Your task to perform on an android device: change the clock style Image 0: 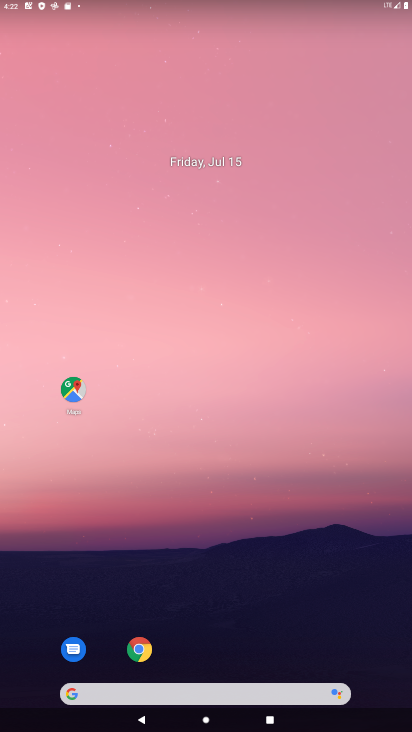
Step 0: drag from (243, 560) to (82, 0)
Your task to perform on an android device: change the clock style Image 1: 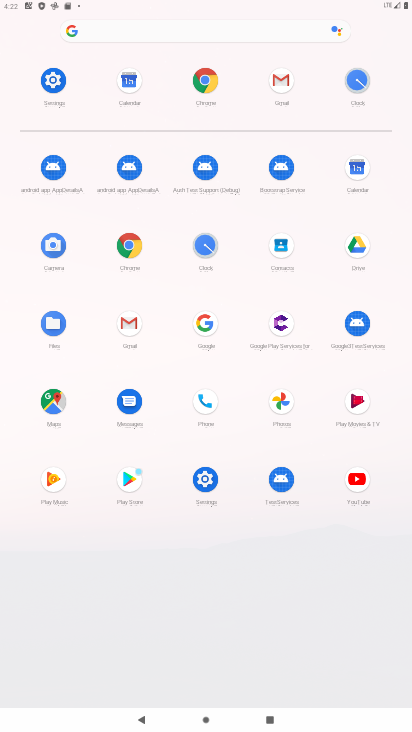
Step 1: click (208, 240)
Your task to perform on an android device: change the clock style Image 2: 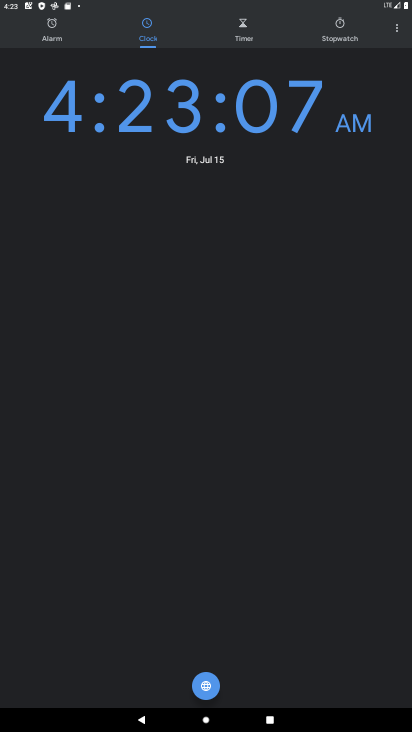
Step 2: click (392, 31)
Your task to perform on an android device: change the clock style Image 3: 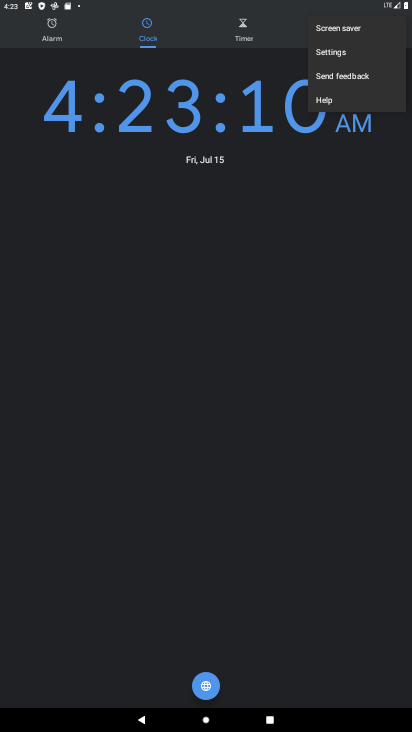
Step 3: click (326, 58)
Your task to perform on an android device: change the clock style Image 4: 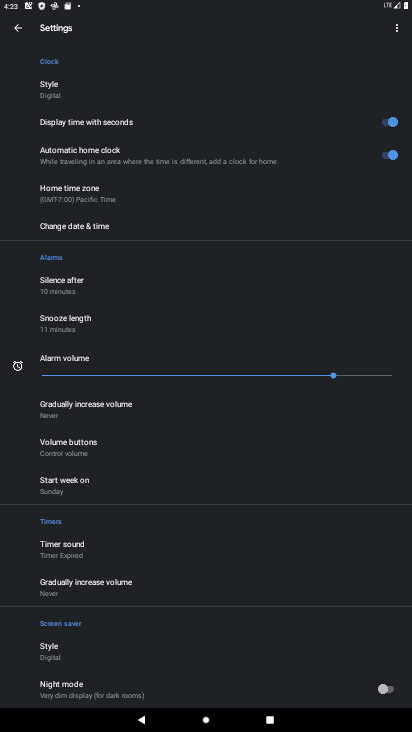
Step 4: click (61, 92)
Your task to perform on an android device: change the clock style Image 5: 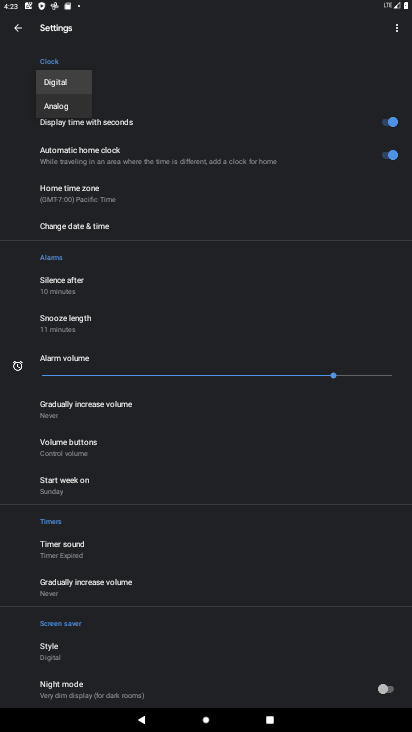
Step 5: click (65, 103)
Your task to perform on an android device: change the clock style Image 6: 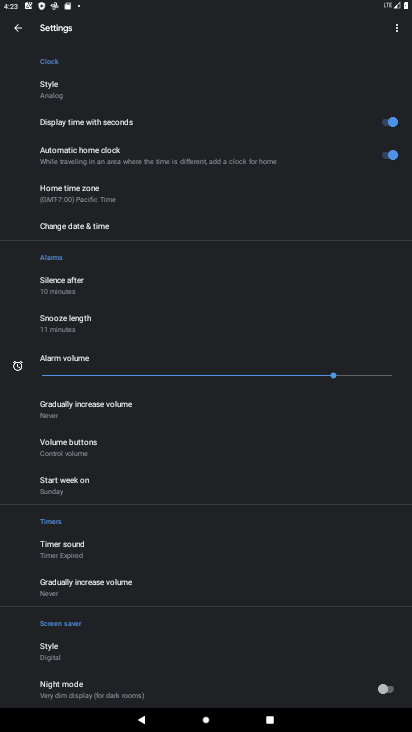
Step 6: task complete